Your task to perform on an android device: Open Reddit.com Image 0: 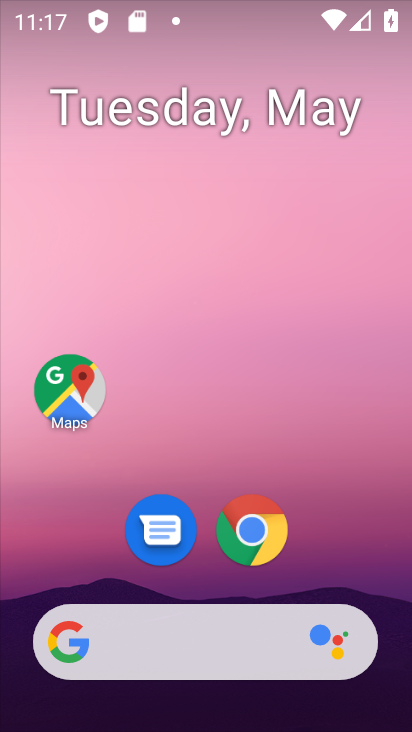
Step 0: drag from (207, 165) to (204, 10)
Your task to perform on an android device: Open Reddit.com Image 1: 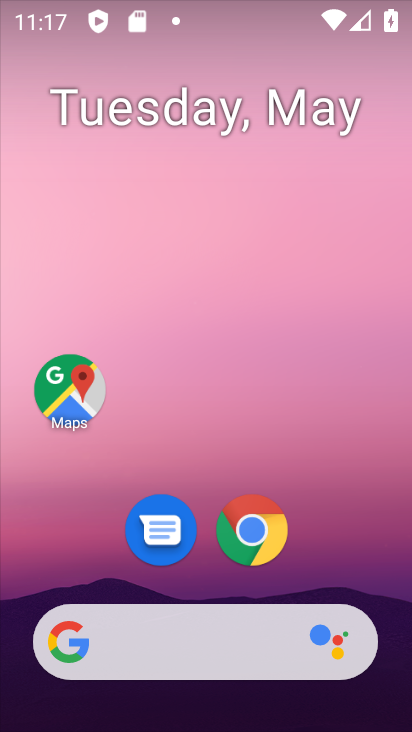
Step 1: drag from (322, 606) to (318, 35)
Your task to perform on an android device: Open Reddit.com Image 2: 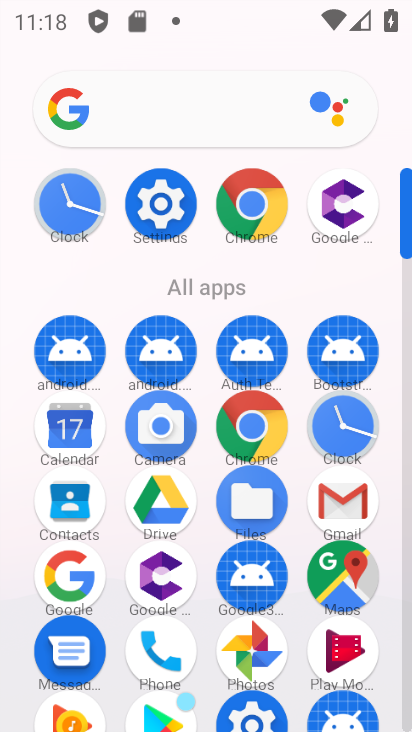
Step 2: click (257, 424)
Your task to perform on an android device: Open Reddit.com Image 3: 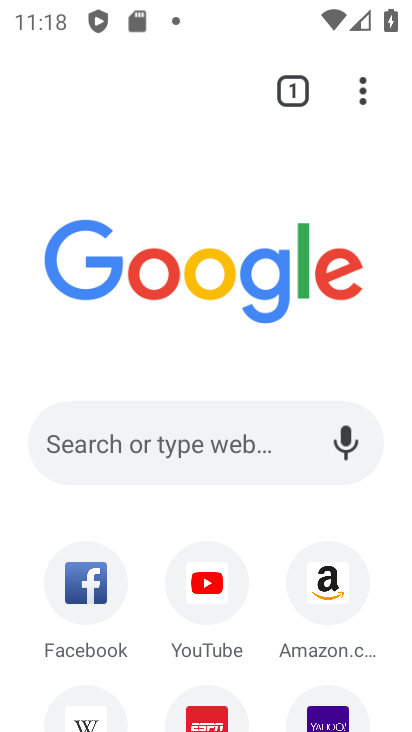
Step 3: click (219, 447)
Your task to perform on an android device: Open Reddit.com Image 4: 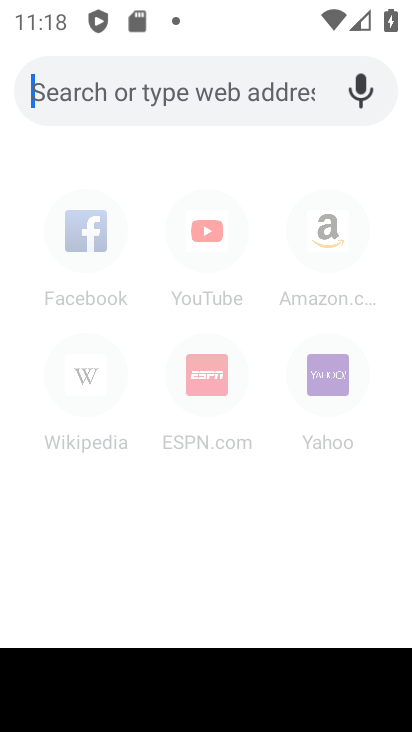
Step 4: type "reddit.com"
Your task to perform on an android device: Open Reddit.com Image 5: 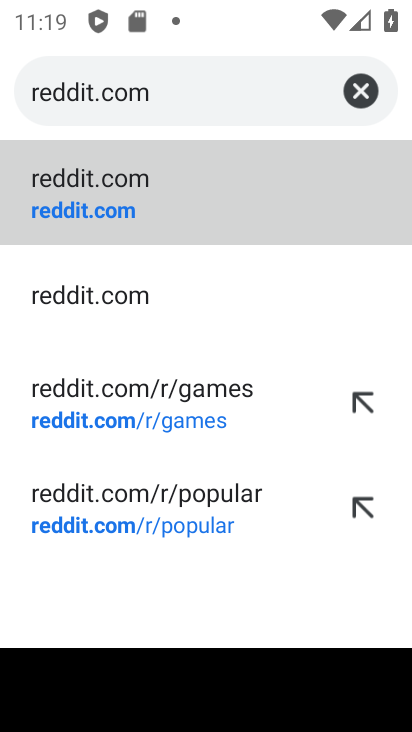
Step 5: click (143, 156)
Your task to perform on an android device: Open Reddit.com Image 6: 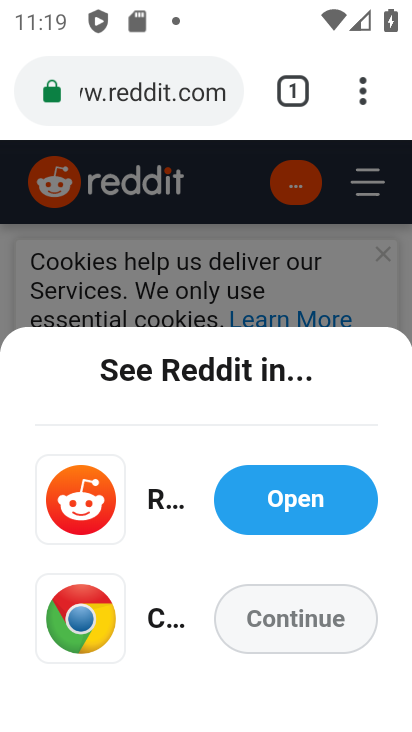
Step 6: task complete